Your task to perform on an android device: Search for "lenovo thinkpad" on bestbuy.com, select the first entry, and add it to the cart. Image 0: 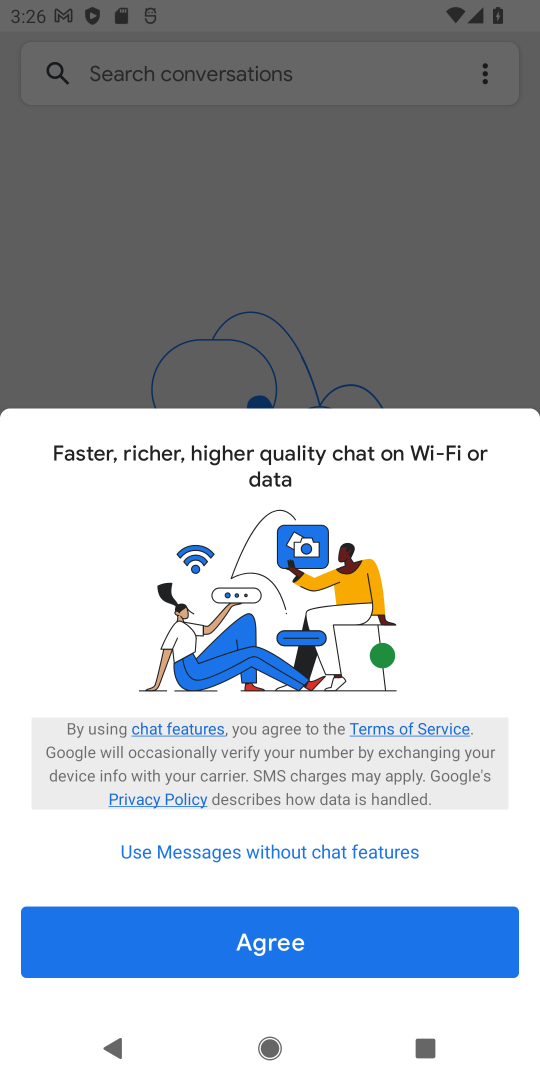
Step 0: press home button
Your task to perform on an android device: Search for "lenovo thinkpad" on bestbuy.com, select the first entry, and add it to the cart. Image 1: 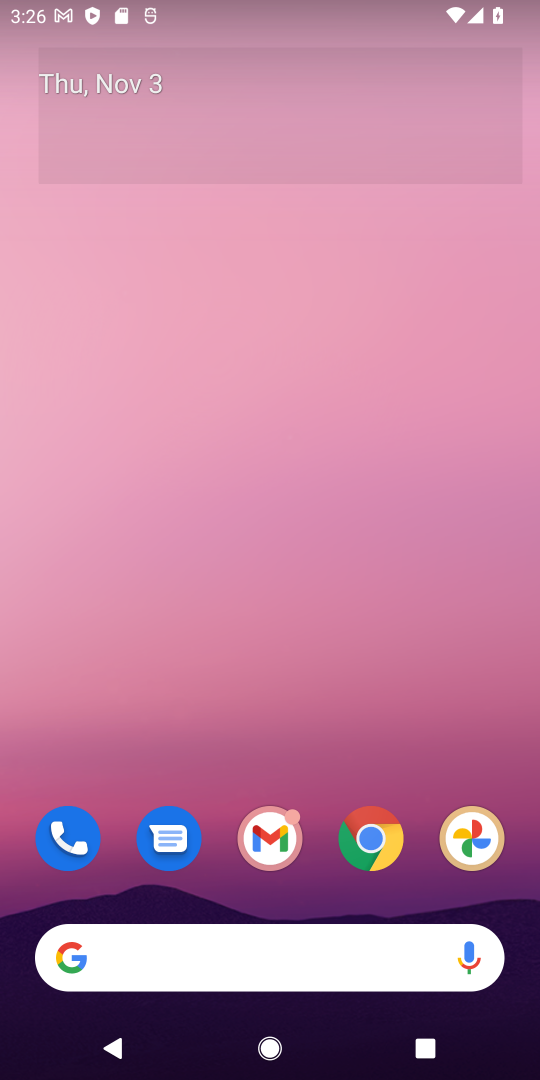
Step 1: drag from (332, 890) to (535, 60)
Your task to perform on an android device: Search for "lenovo thinkpad" on bestbuy.com, select the first entry, and add it to the cart. Image 2: 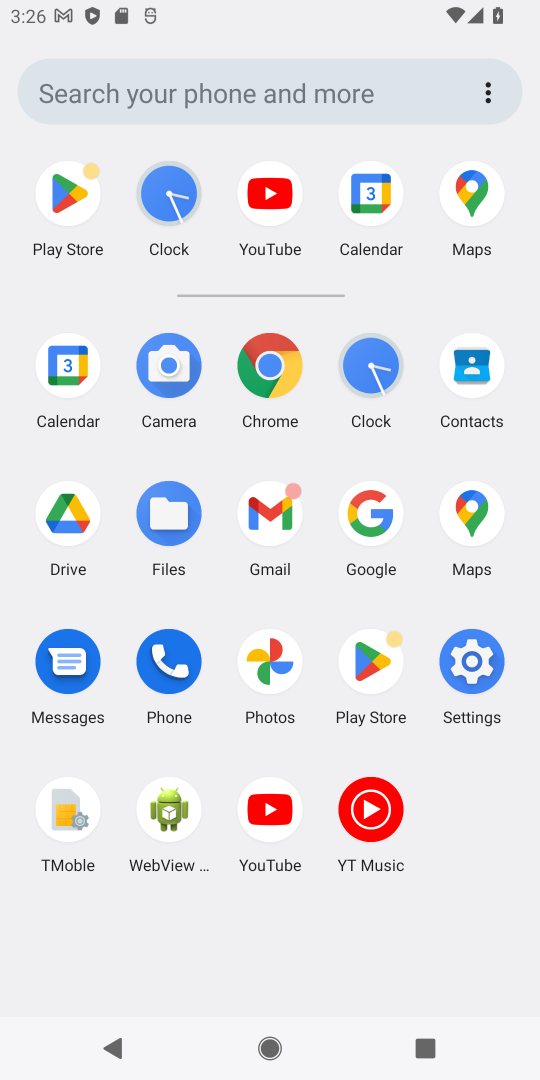
Step 2: click (268, 371)
Your task to perform on an android device: Search for "lenovo thinkpad" on bestbuy.com, select the first entry, and add it to the cart. Image 3: 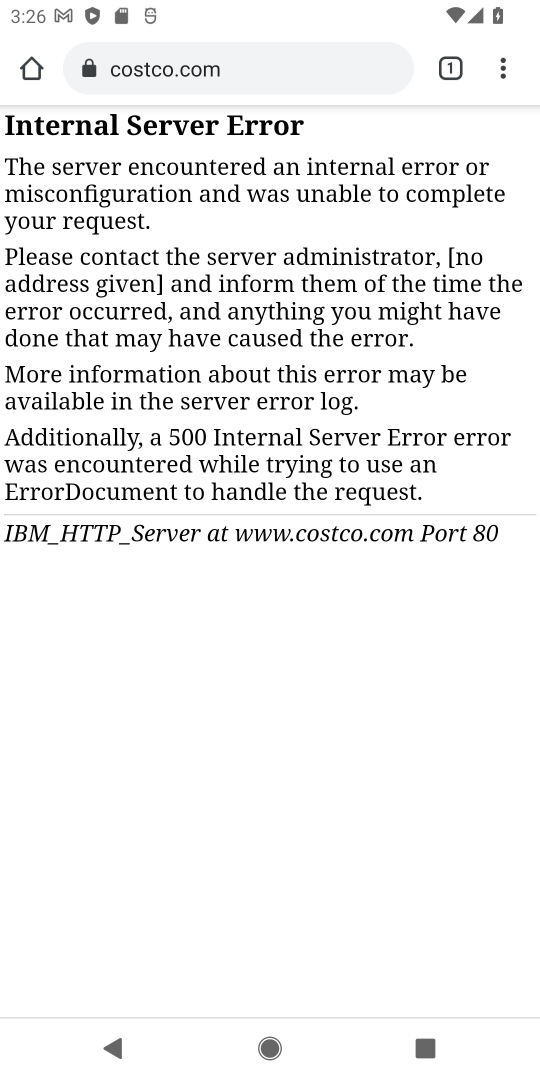
Step 3: click (295, 78)
Your task to perform on an android device: Search for "lenovo thinkpad" on bestbuy.com, select the first entry, and add it to the cart. Image 4: 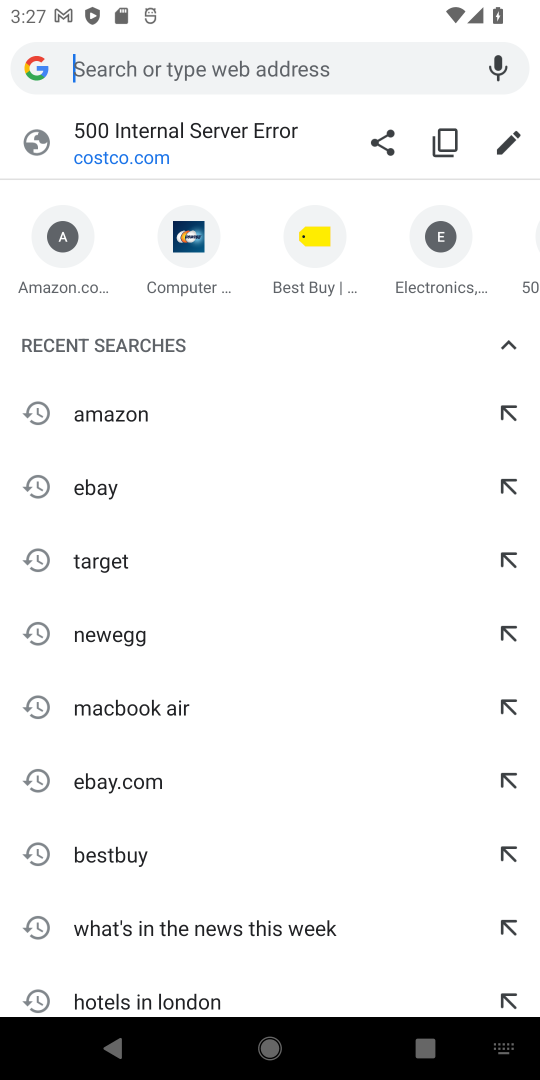
Step 4: type "bestbuy.com"
Your task to perform on an android device: Search for "lenovo thinkpad" on bestbuy.com, select the first entry, and add it to the cart. Image 5: 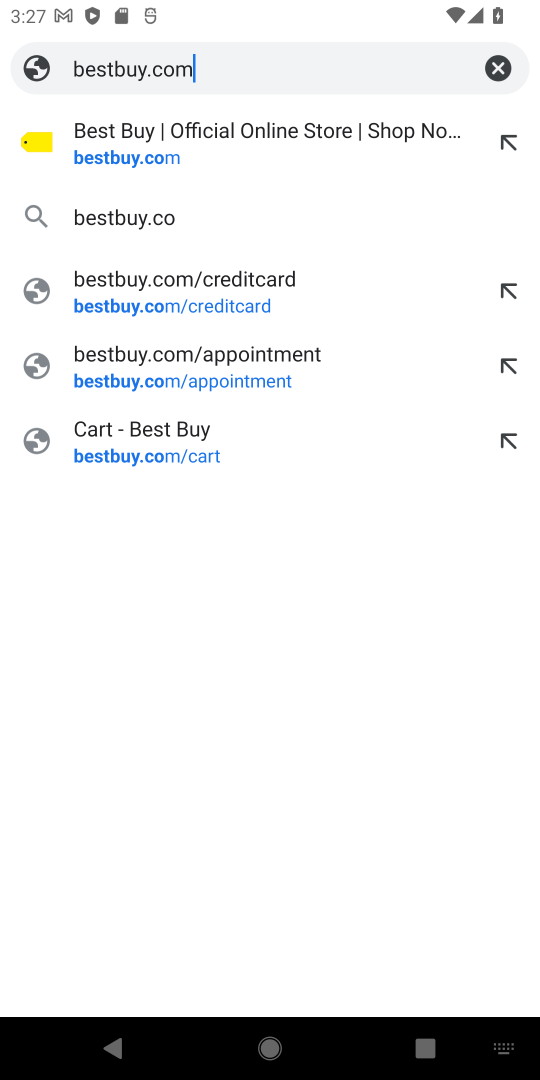
Step 5: press enter
Your task to perform on an android device: Search for "lenovo thinkpad" on bestbuy.com, select the first entry, and add it to the cart. Image 6: 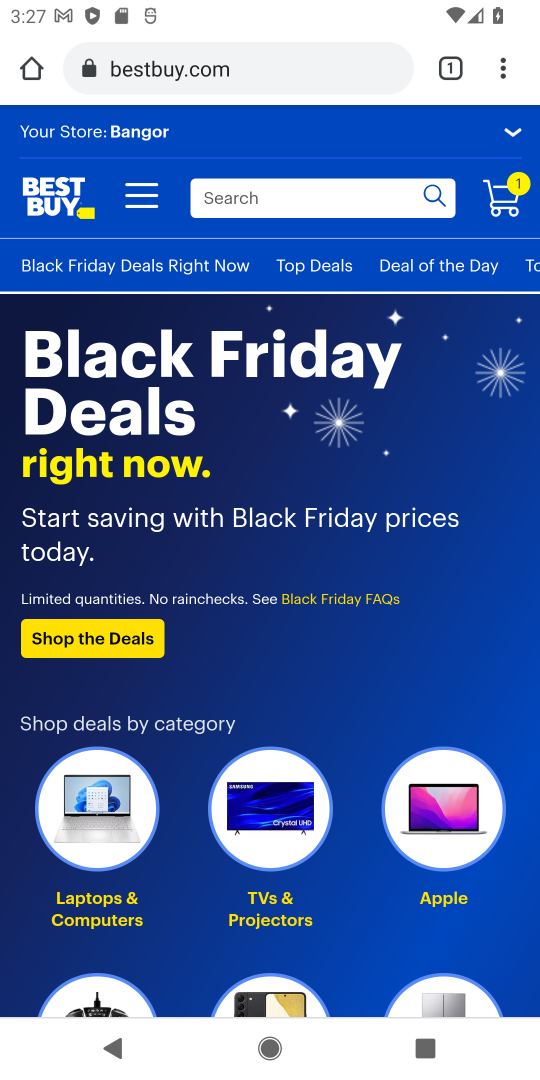
Step 6: click (300, 195)
Your task to perform on an android device: Search for "lenovo thinkpad" on bestbuy.com, select the first entry, and add it to the cart. Image 7: 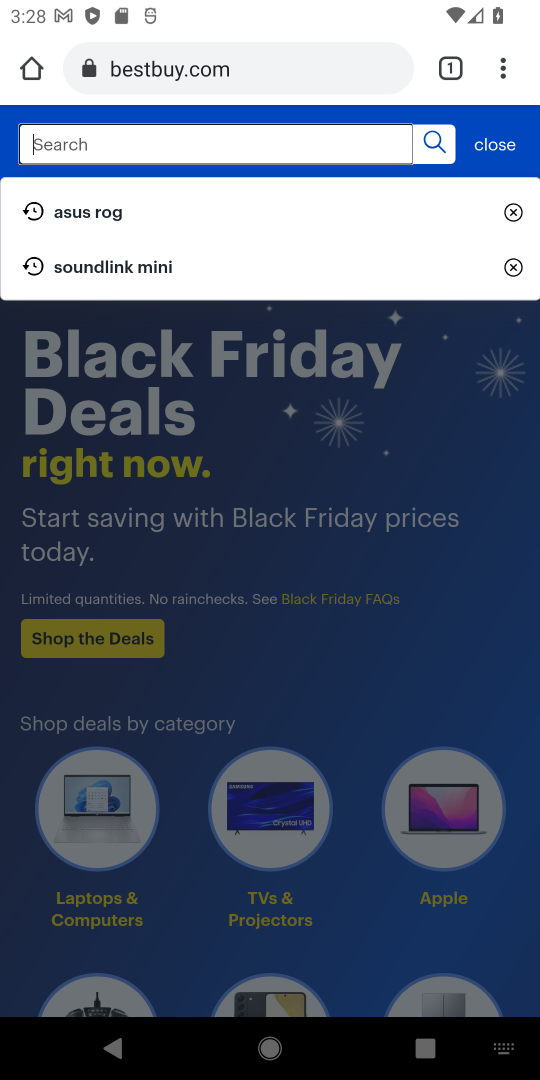
Step 7: type "lenovo thinkpad"
Your task to perform on an android device: Search for "lenovo thinkpad" on bestbuy.com, select the first entry, and add it to the cart. Image 8: 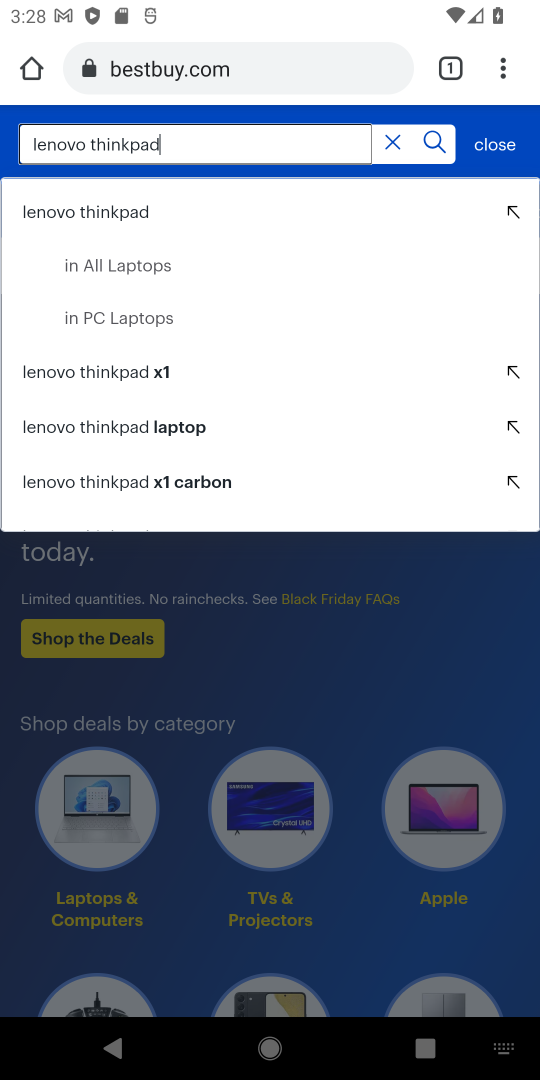
Step 8: press enter
Your task to perform on an android device: Search for "lenovo thinkpad" on bestbuy.com, select the first entry, and add it to the cart. Image 9: 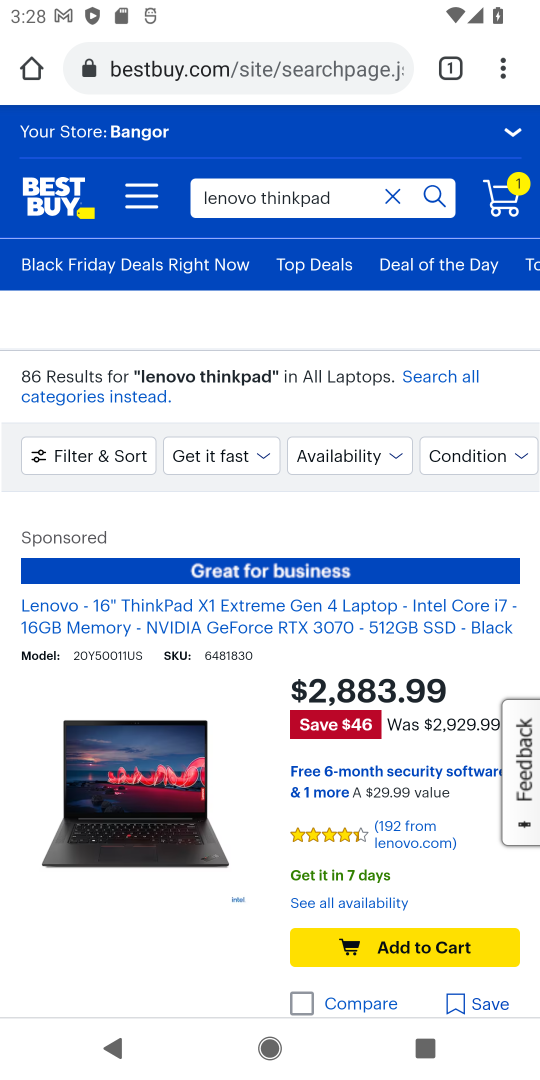
Step 9: drag from (341, 857) to (334, 525)
Your task to perform on an android device: Search for "lenovo thinkpad" on bestbuy.com, select the first entry, and add it to the cart. Image 10: 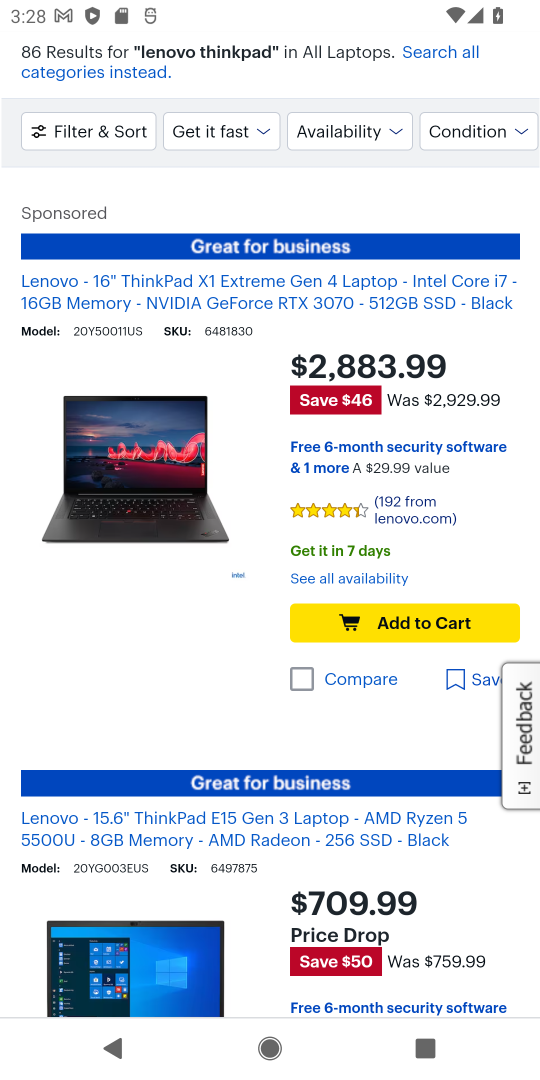
Step 10: click (435, 629)
Your task to perform on an android device: Search for "lenovo thinkpad" on bestbuy.com, select the first entry, and add it to the cart. Image 11: 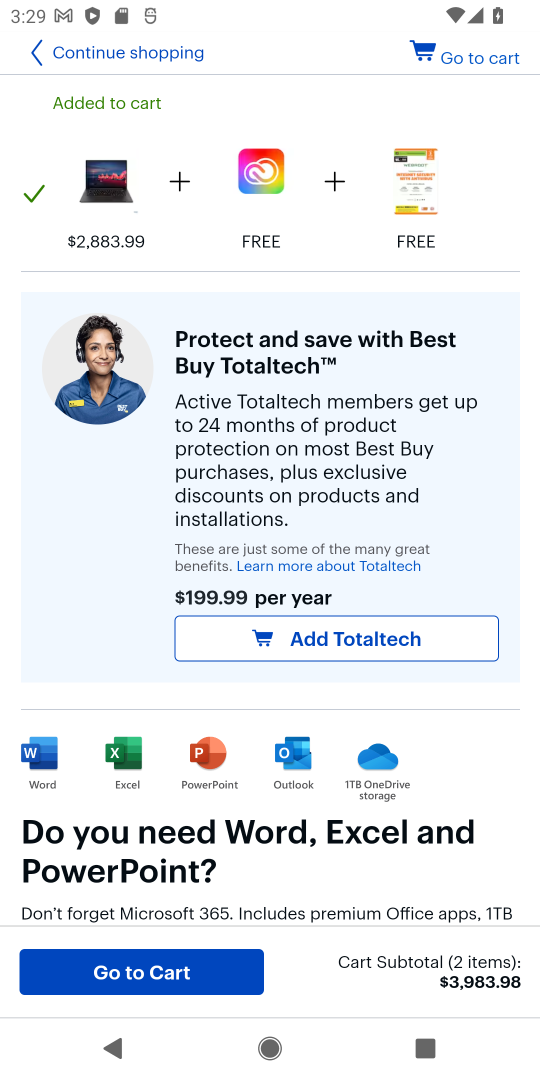
Step 11: task complete